Your task to perform on an android device: turn off javascript in the chrome app Image 0: 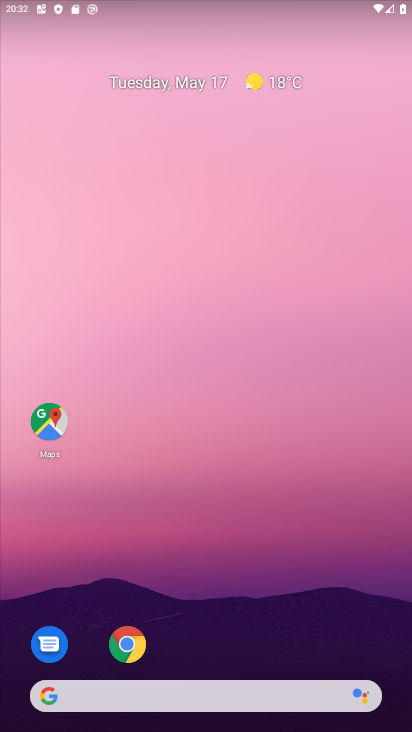
Step 0: click (129, 639)
Your task to perform on an android device: turn off javascript in the chrome app Image 1: 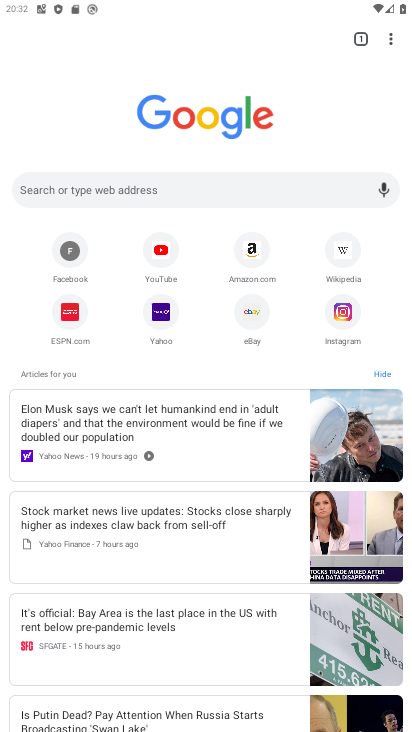
Step 1: click (392, 35)
Your task to perform on an android device: turn off javascript in the chrome app Image 2: 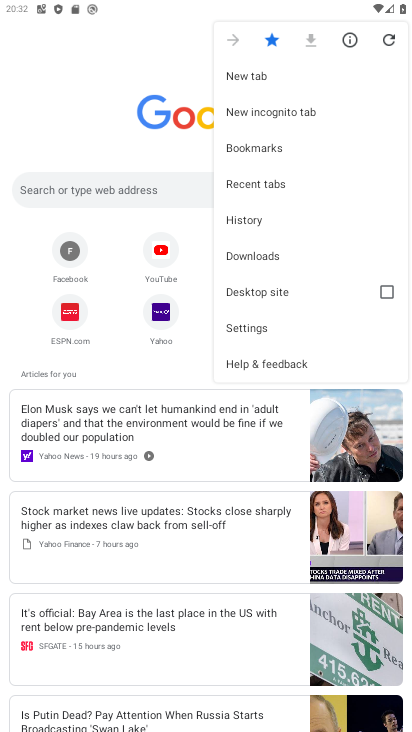
Step 2: click (262, 317)
Your task to perform on an android device: turn off javascript in the chrome app Image 3: 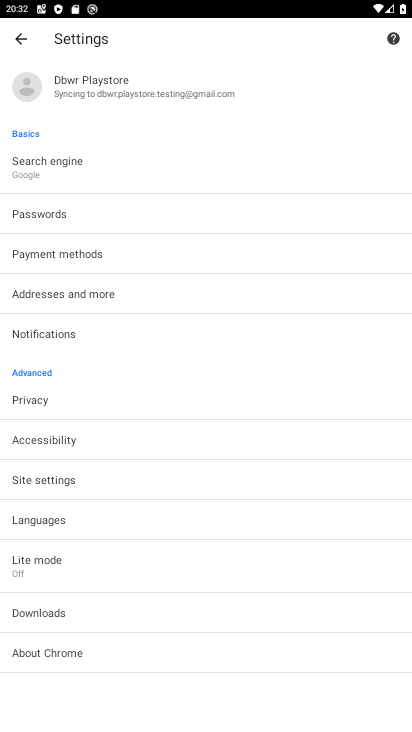
Step 3: click (46, 466)
Your task to perform on an android device: turn off javascript in the chrome app Image 4: 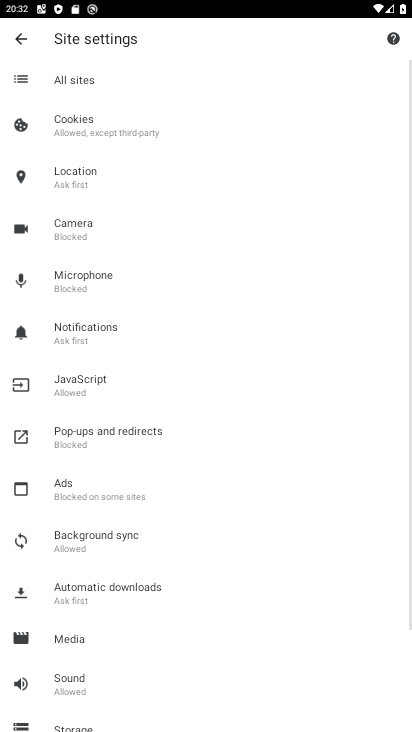
Step 4: click (95, 364)
Your task to perform on an android device: turn off javascript in the chrome app Image 5: 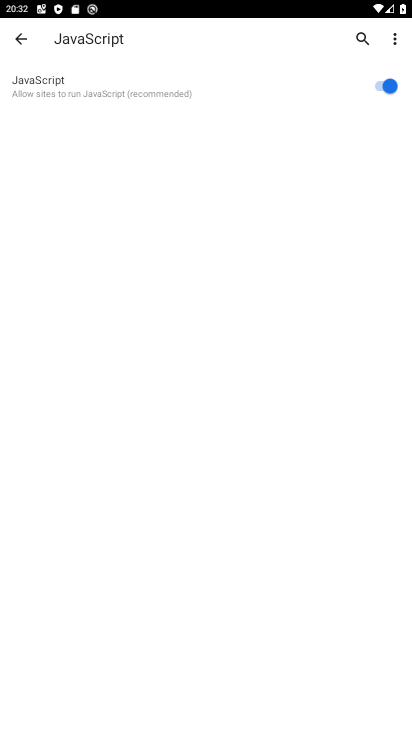
Step 5: click (397, 80)
Your task to perform on an android device: turn off javascript in the chrome app Image 6: 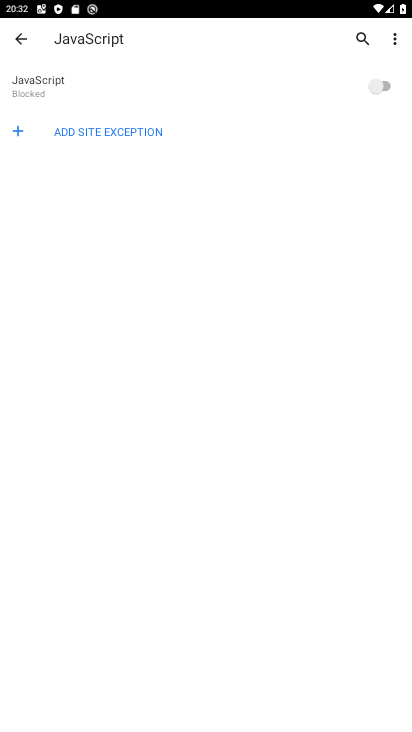
Step 6: task complete